Your task to perform on an android device: open device folders in google photos Image 0: 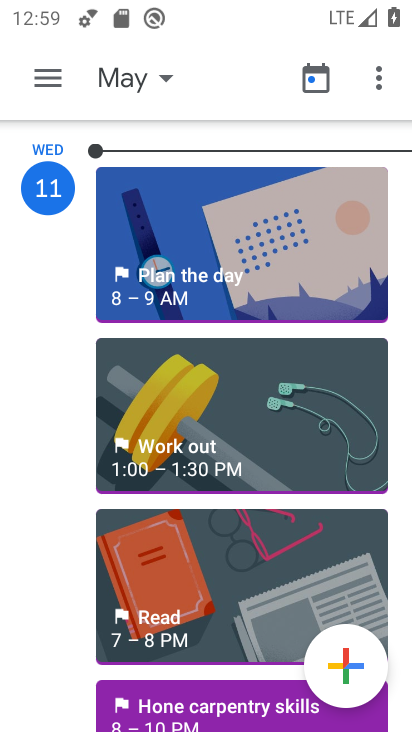
Step 0: press home button
Your task to perform on an android device: open device folders in google photos Image 1: 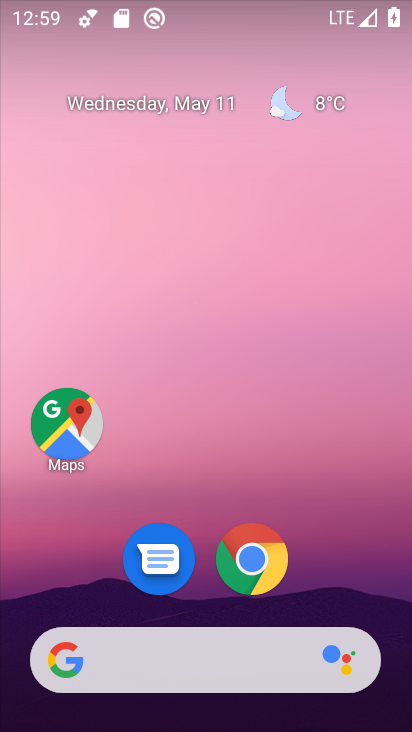
Step 1: drag from (195, 682) to (144, 110)
Your task to perform on an android device: open device folders in google photos Image 2: 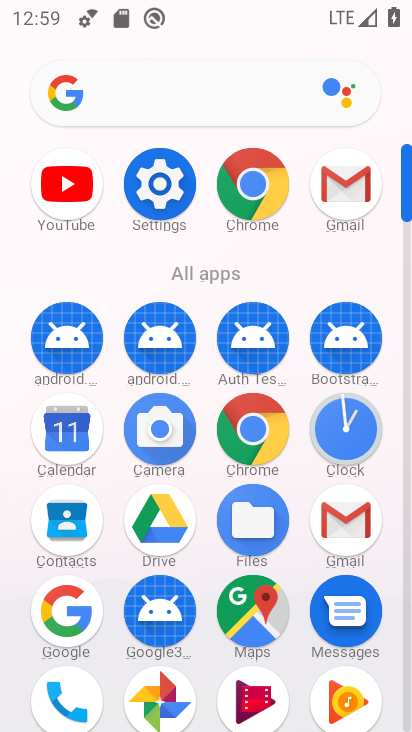
Step 2: click (163, 690)
Your task to perform on an android device: open device folders in google photos Image 3: 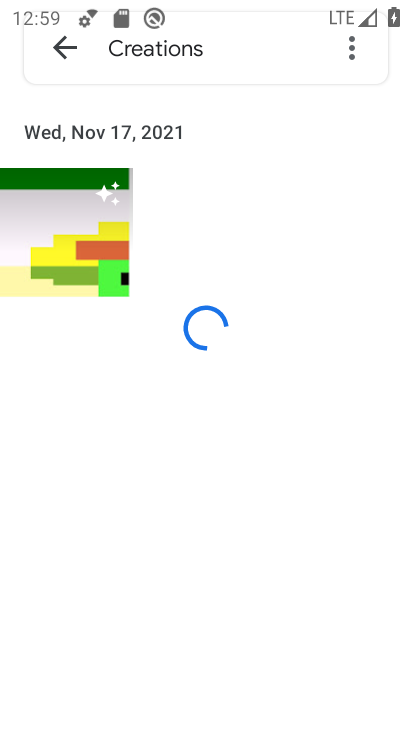
Step 3: click (66, 47)
Your task to perform on an android device: open device folders in google photos Image 4: 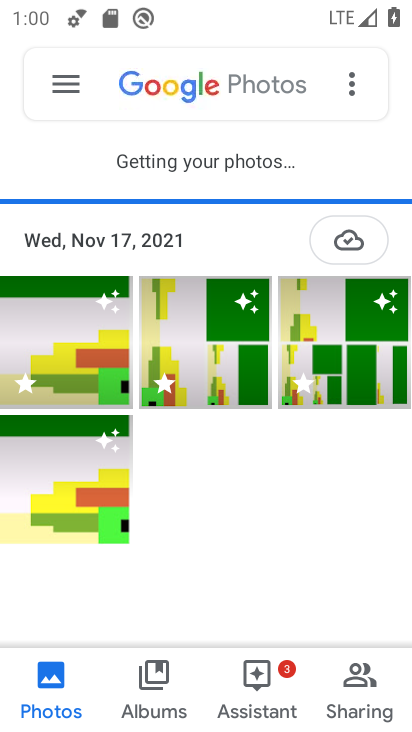
Step 4: click (67, 77)
Your task to perform on an android device: open device folders in google photos Image 5: 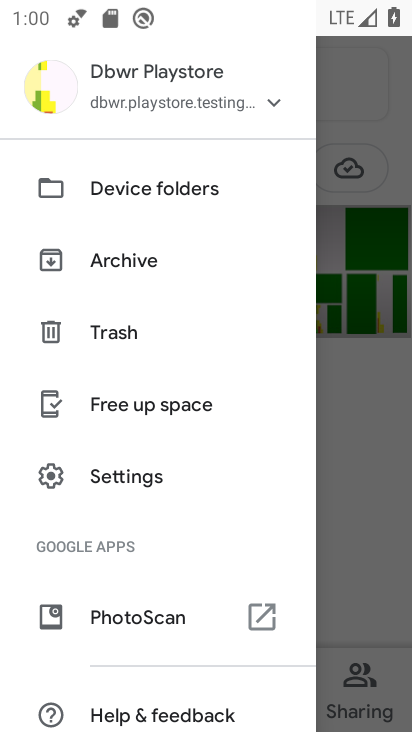
Step 5: click (124, 186)
Your task to perform on an android device: open device folders in google photos Image 6: 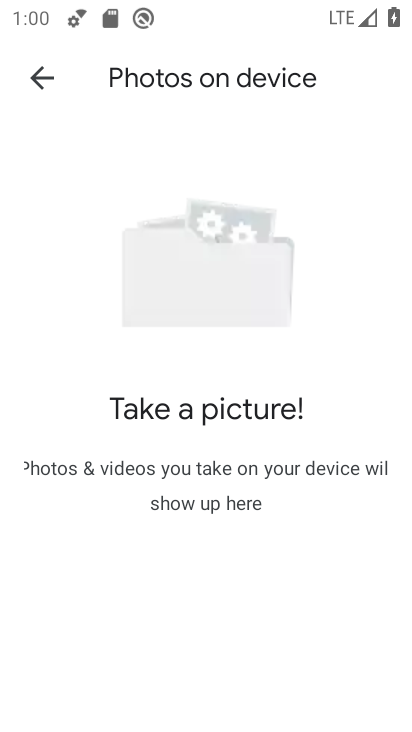
Step 6: task complete